Your task to perform on an android device: turn off notifications settings in the gmail app Image 0: 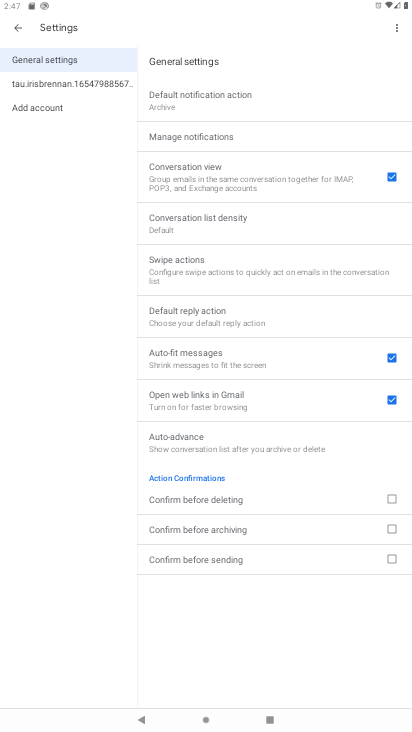
Step 0: press home button
Your task to perform on an android device: turn off notifications settings in the gmail app Image 1: 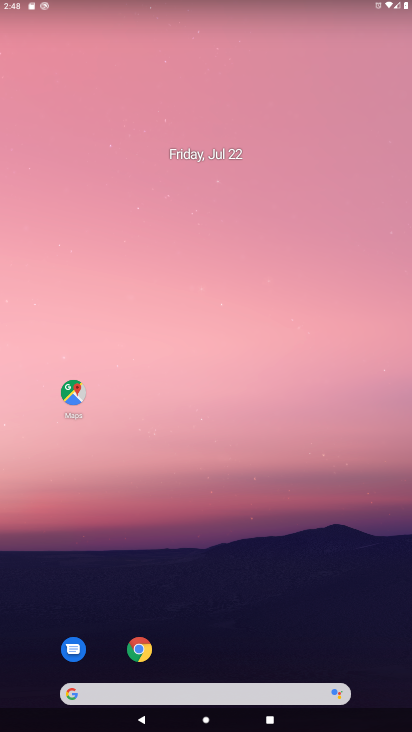
Step 1: drag from (233, 728) to (218, 114)
Your task to perform on an android device: turn off notifications settings in the gmail app Image 2: 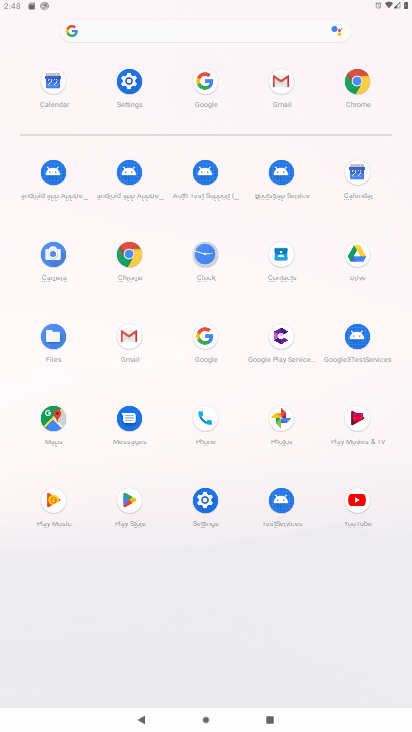
Step 2: click (123, 341)
Your task to perform on an android device: turn off notifications settings in the gmail app Image 3: 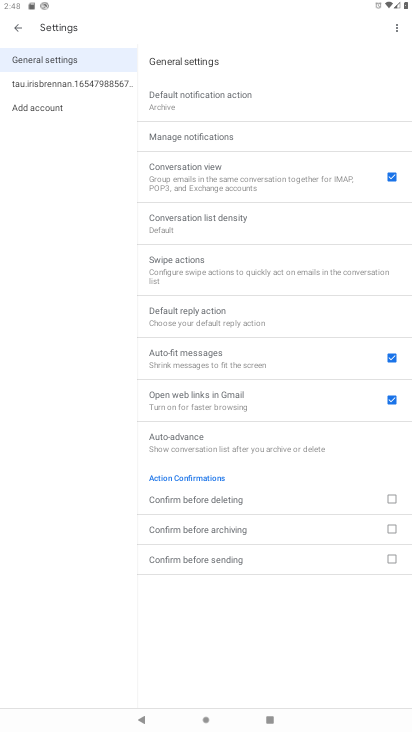
Step 3: click (77, 77)
Your task to perform on an android device: turn off notifications settings in the gmail app Image 4: 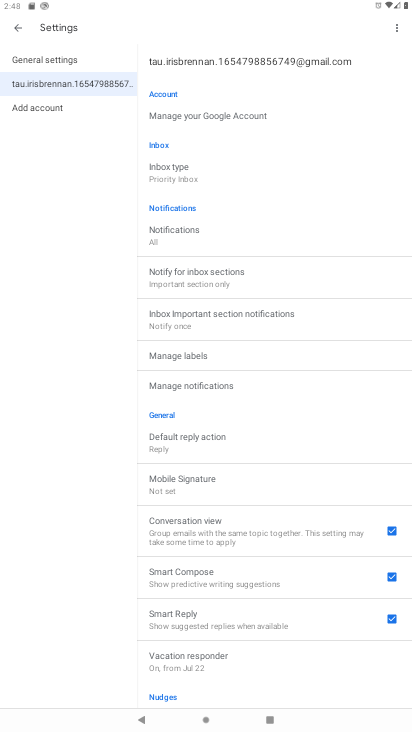
Step 4: click (175, 240)
Your task to perform on an android device: turn off notifications settings in the gmail app Image 5: 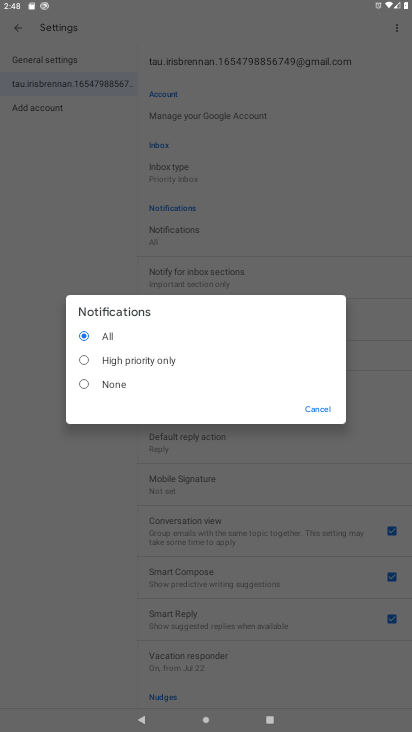
Step 5: click (83, 380)
Your task to perform on an android device: turn off notifications settings in the gmail app Image 6: 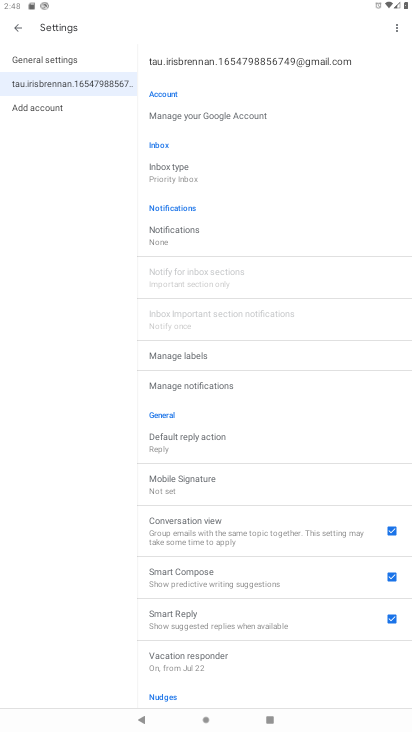
Step 6: task complete